Your task to perform on an android device: change the clock display to show seconds Image 0: 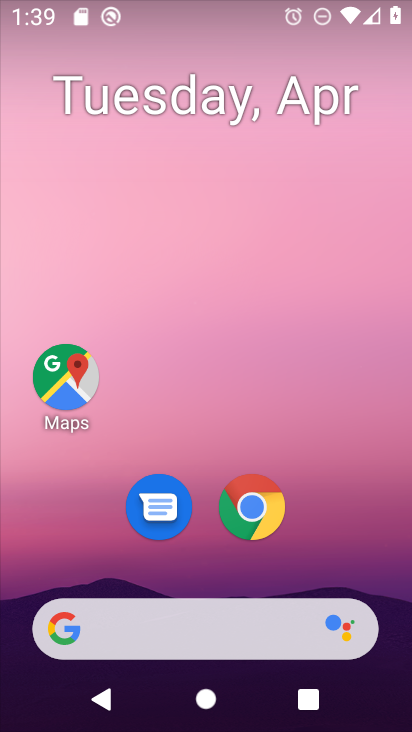
Step 0: drag from (384, 527) to (304, 74)
Your task to perform on an android device: change the clock display to show seconds Image 1: 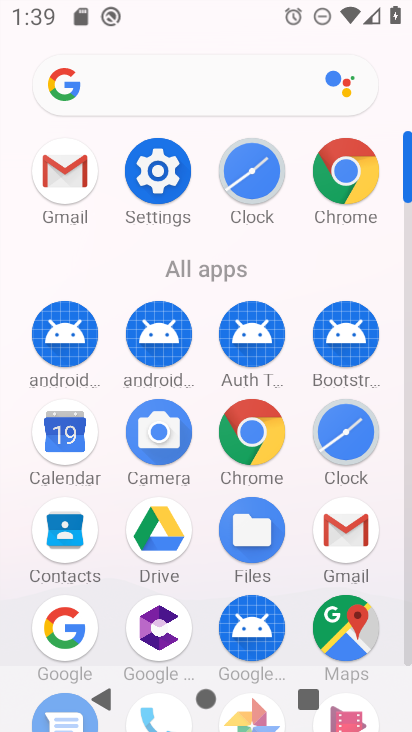
Step 1: click (156, 192)
Your task to perform on an android device: change the clock display to show seconds Image 2: 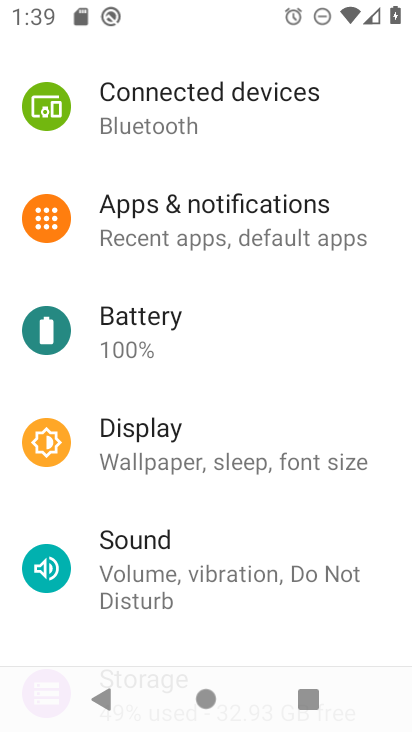
Step 2: press home button
Your task to perform on an android device: change the clock display to show seconds Image 3: 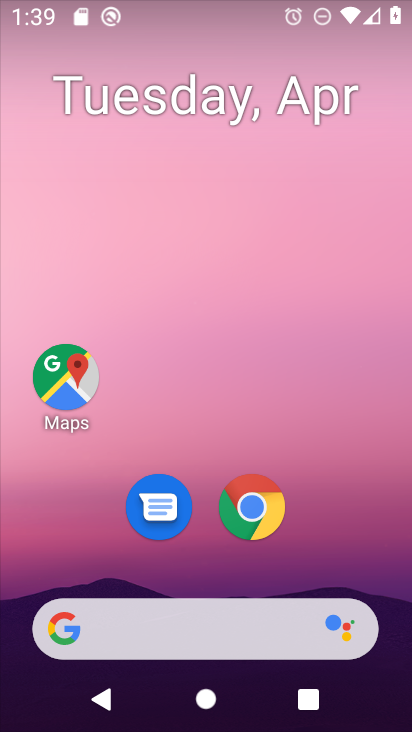
Step 3: drag from (360, 511) to (282, 48)
Your task to perform on an android device: change the clock display to show seconds Image 4: 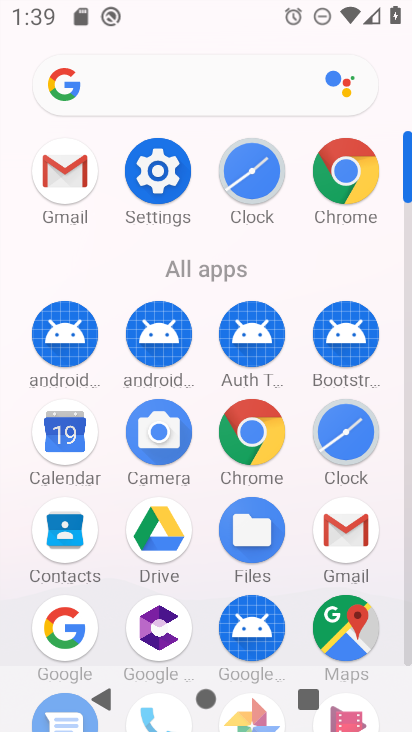
Step 4: click (254, 205)
Your task to perform on an android device: change the clock display to show seconds Image 5: 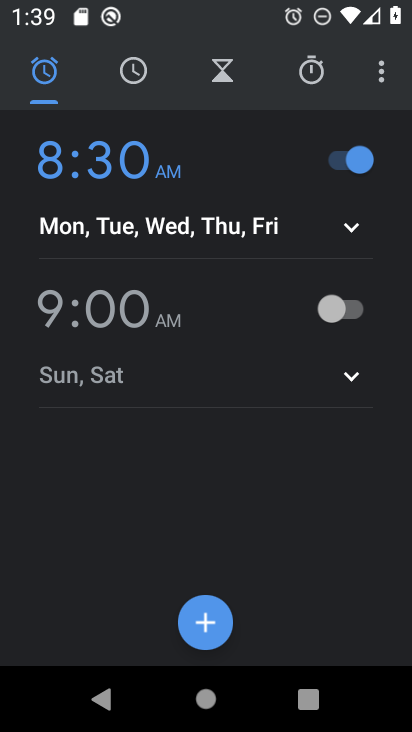
Step 5: click (373, 65)
Your task to perform on an android device: change the clock display to show seconds Image 6: 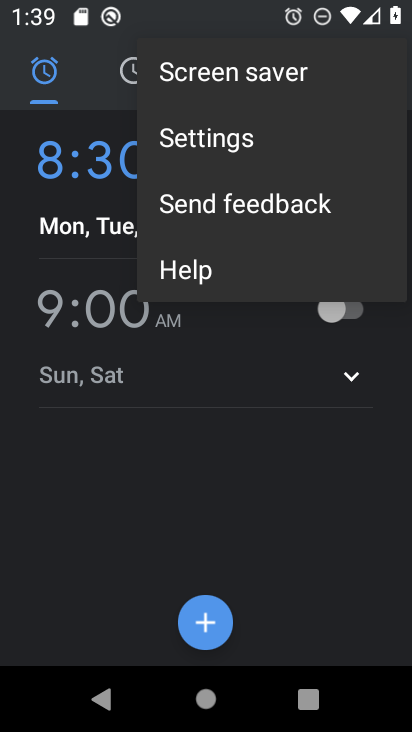
Step 6: click (300, 153)
Your task to perform on an android device: change the clock display to show seconds Image 7: 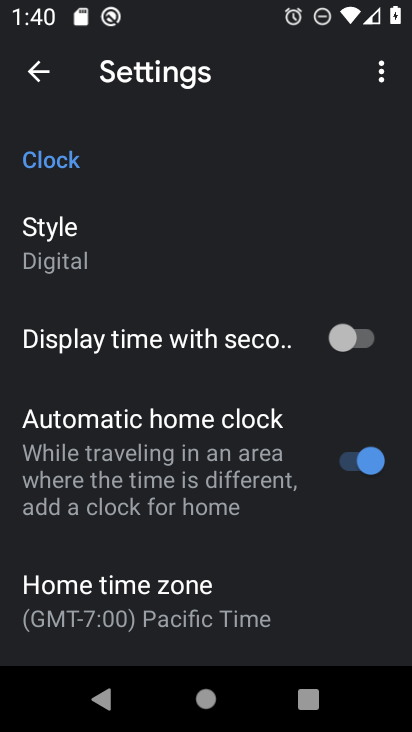
Step 7: click (350, 331)
Your task to perform on an android device: change the clock display to show seconds Image 8: 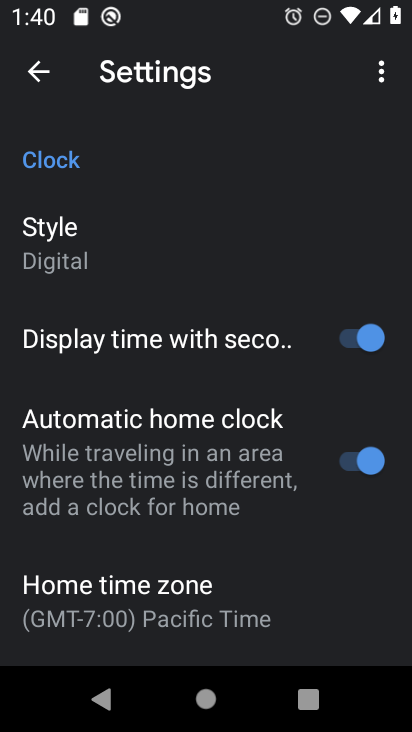
Step 8: task complete